Your task to perform on an android device: open app "The Home Depot" (install if not already installed) and enter user name: "taproot@icloud.com" and password: "executions" Image 0: 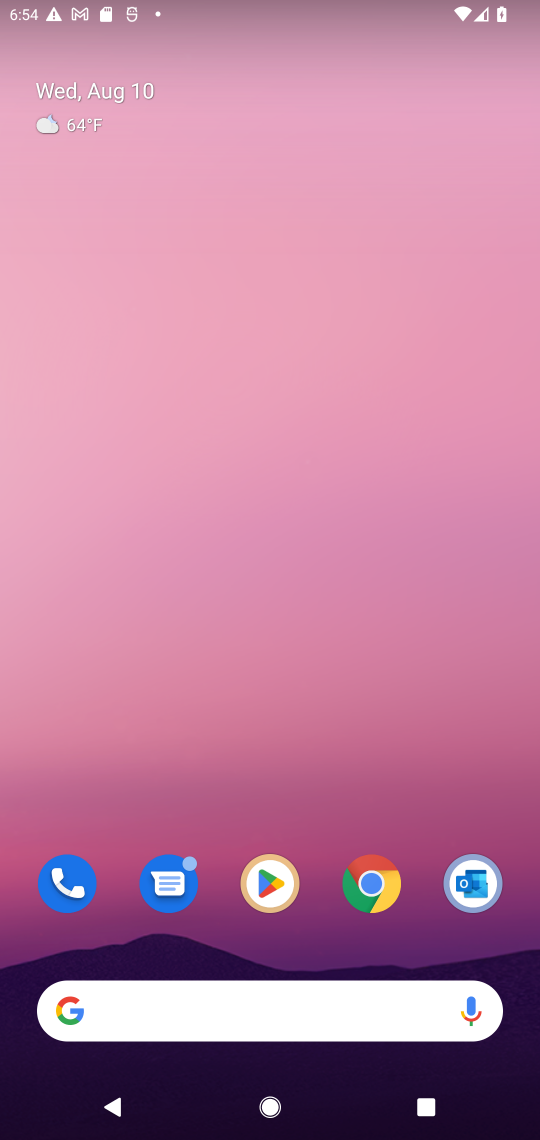
Step 0: click (264, 879)
Your task to perform on an android device: open app "The Home Depot" (install if not already installed) and enter user name: "taproot@icloud.com" and password: "executions" Image 1: 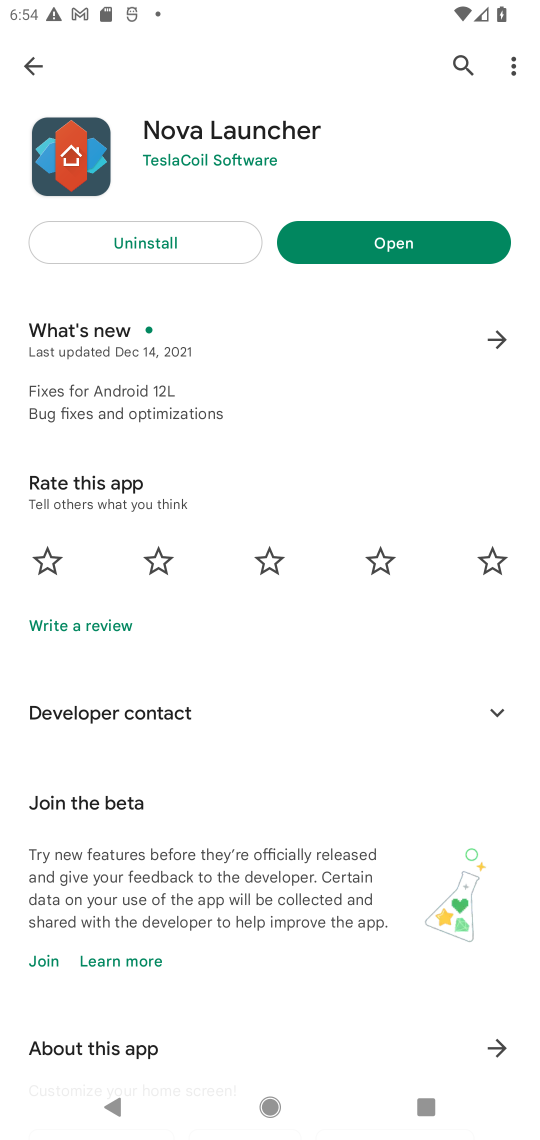
Step 1: click (458, 54)
Your task to perform on an android device: open app "The Home Depot" (install if not already installed) and enter user name: "taproot@icloud.com" and password: "executions" Image 2: 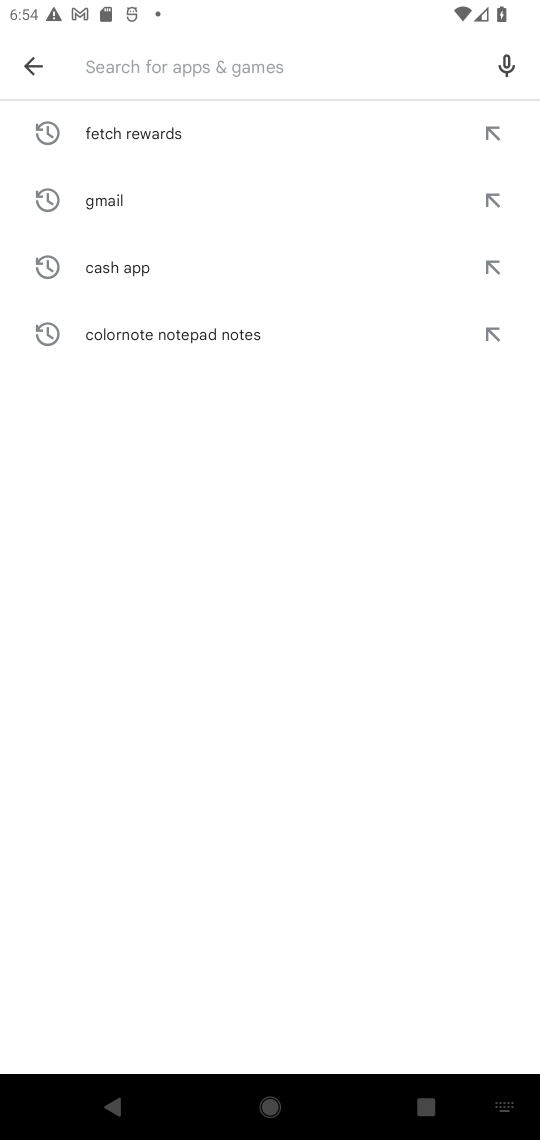
Step 2: type "The Home Depot"
Your task to perform on an android device: open app "The Home Depot" (install if not already installed) and enter user name: "taproot@icloud.com" and password: "executions" Image 3: 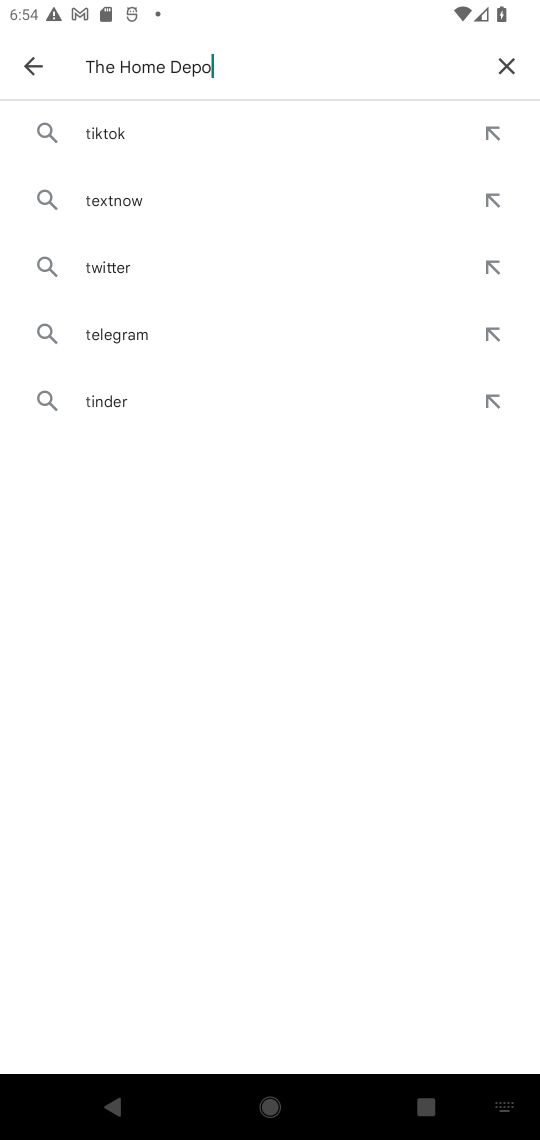
Step 3: type ""
Your task to perform on an android device: open app "The Home Depot" (install if not already installed) and enter user name: "taproot@icloud.com" and password: "executions" Image 4: 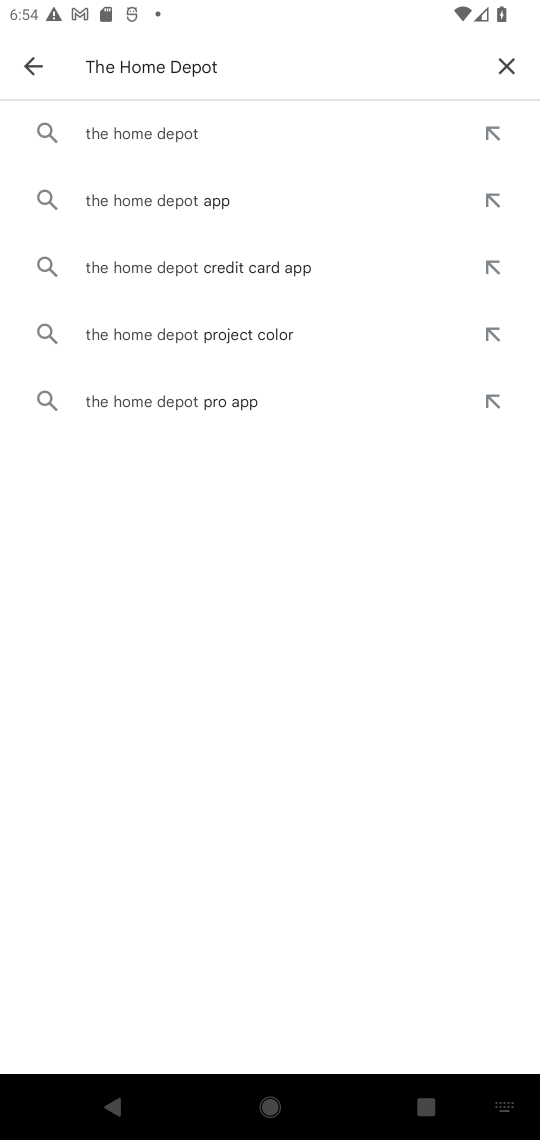
Step 4: click (228, 137)
Your task to perform on an android device: open app "The Home Depot" (install if not already installed) and enter user name: "taproot@icloud.com" and password: "executions" Image 5: 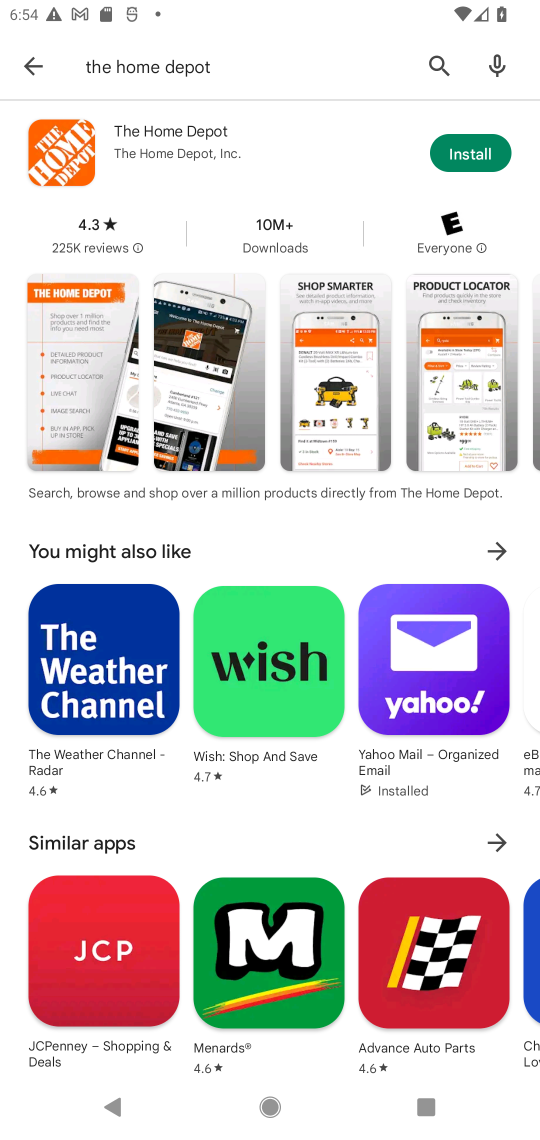
Step 5: click (460, 156)
Your task to perform on an android device: open app "The Home Depot" (install if not already installed) and enter user name: "taproot@icloud.com" and password: "executions" Image 6: 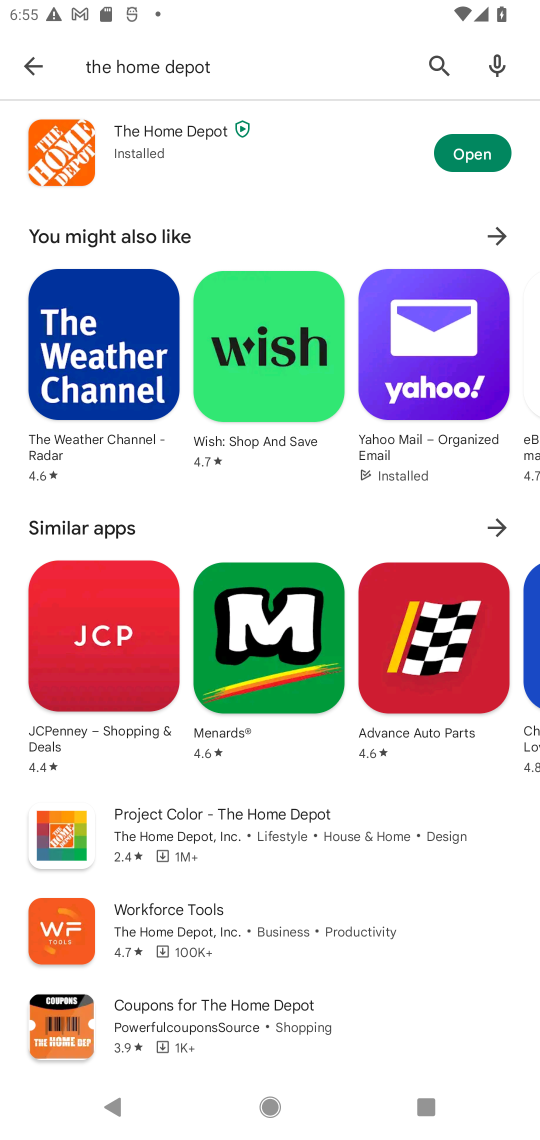
Step 6: click (465, 134)
Your task to perform on an android device: open app "The Home Depot" (install if not already installed) and enter user name: "taproot@icloud.com" and password: "executions" Image 7: 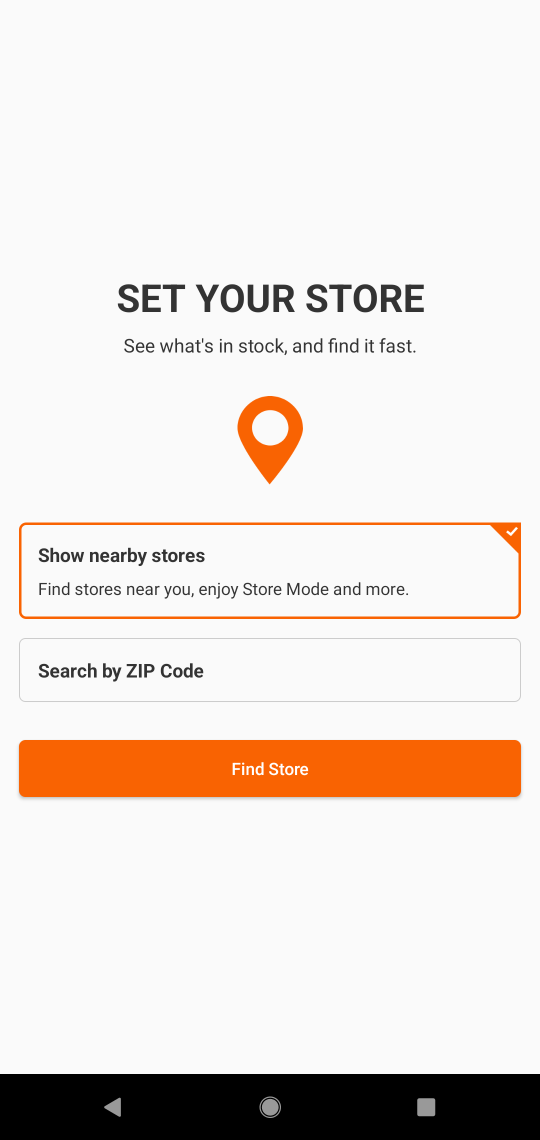
Step 7: task complete